Your task to perform on an android device: Open wifi settings Image 0: 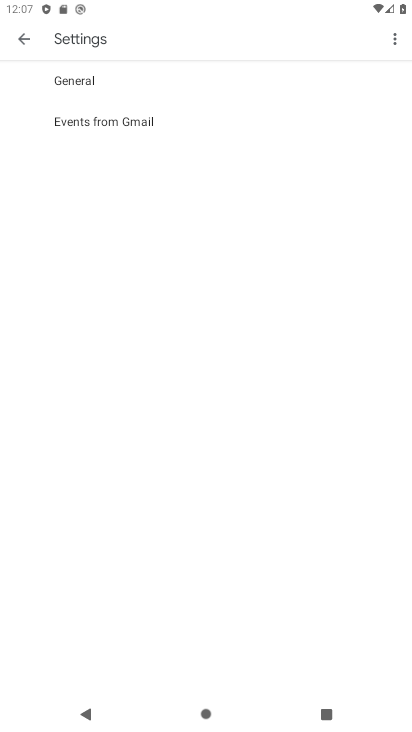
Step 0: press home button
Your task to perform on an android device: Open wifi settings Image 1: 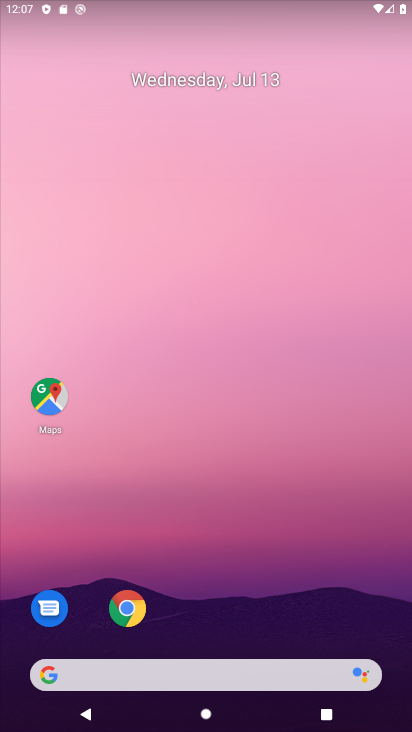
Step 1: drag from (229, 664) to (233, 139)
Your task to perform on an android device: Open wifi settings Image 2: 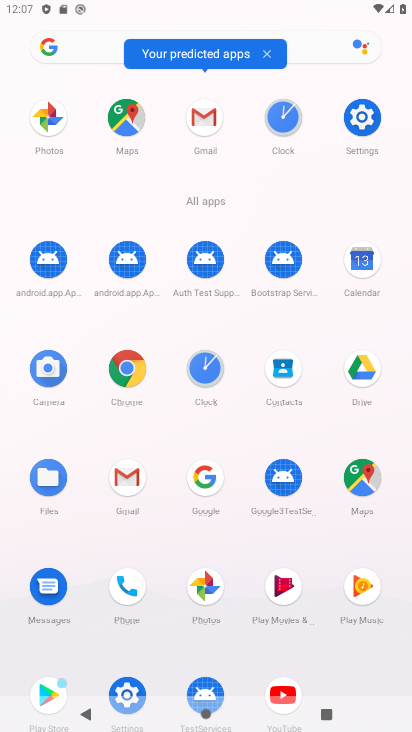
Step 2: click (124, 684)
Your task to perform on an android device: Open wifi settings Image 3: 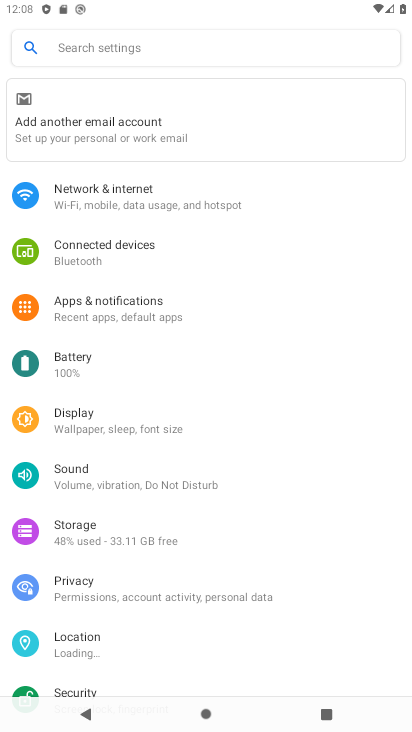
Step 3: click (162, 202)
Your task to perform on an android device: Open wifi settings Image 4: 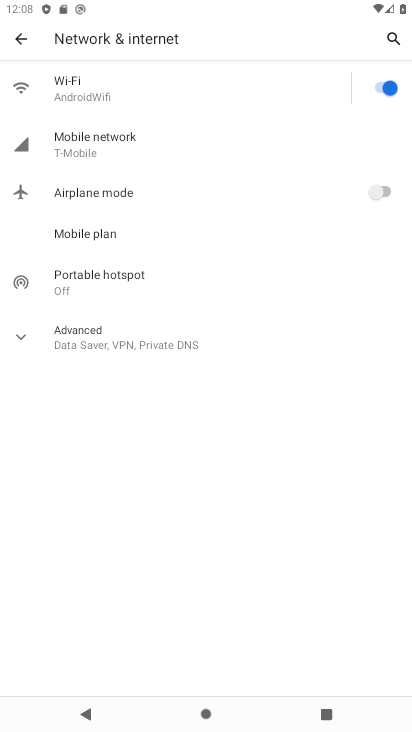
Step 4: click (142, 95)
Your task to perform on an android device: Open wifi settings Image 5: 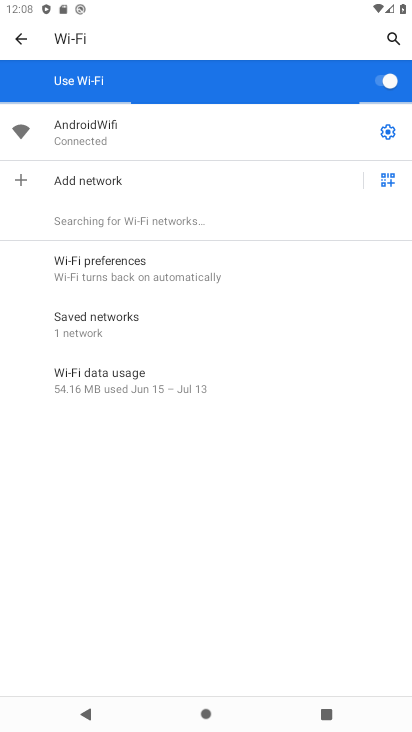
Step 5: task complete